Your task to perform on an android device: toggle wifi Image 0: 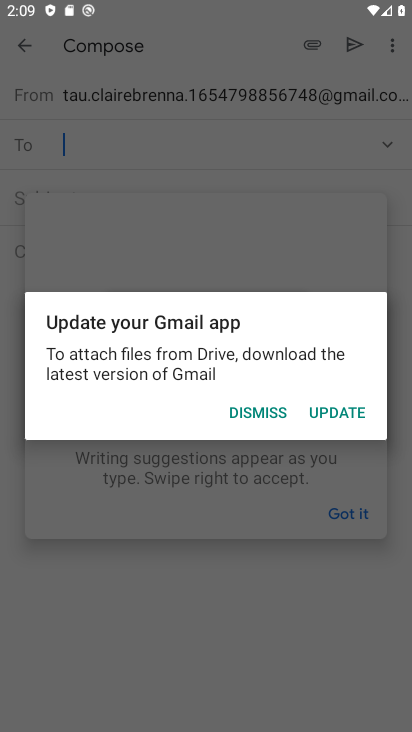
Step 0: drag from (113, 6) to (164, 239)
Your task to perform on an android device: toggle wifi Image 1: 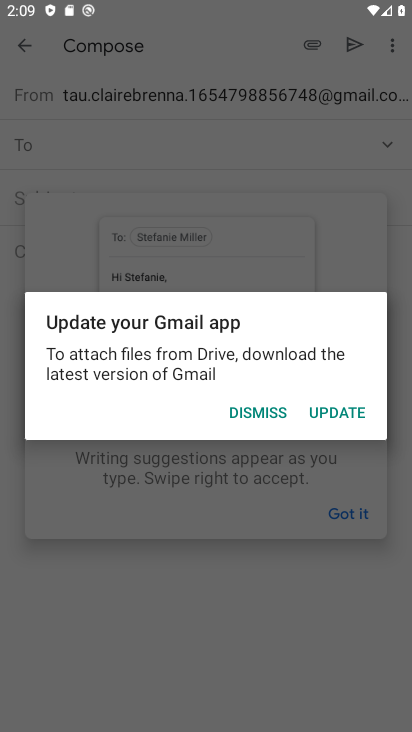
Step 1: drag from (63, 7) to (179, 532)
Your task to perform on an android device: toggle wifi Image 2: 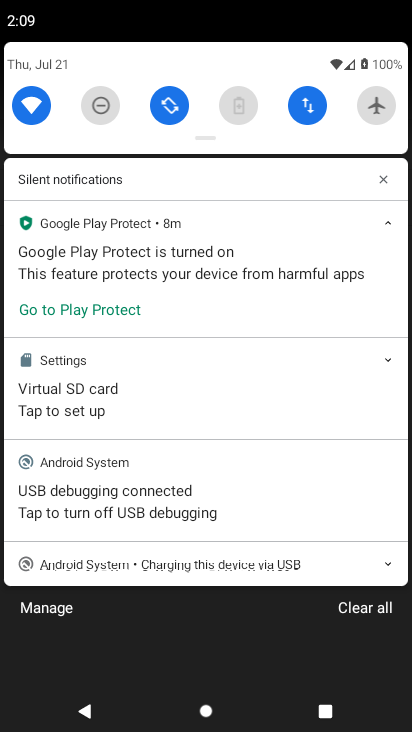
Step 2: click (33, 114)
Your task to perform on an android device: toggle wifi Image 3: 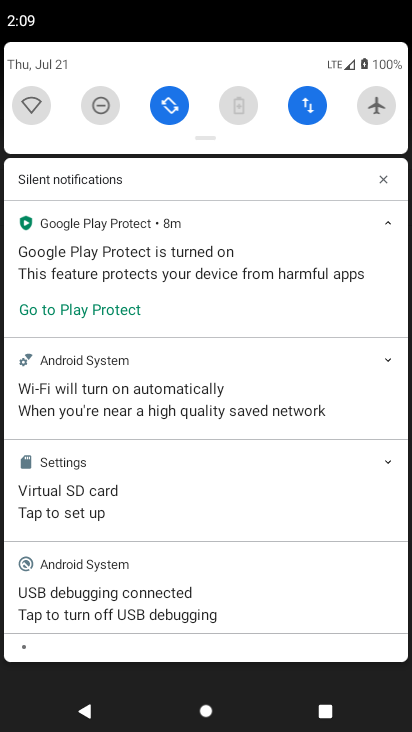
Step 3: task complete